Your task to perform on an android device: all mails in gmail Image 0: 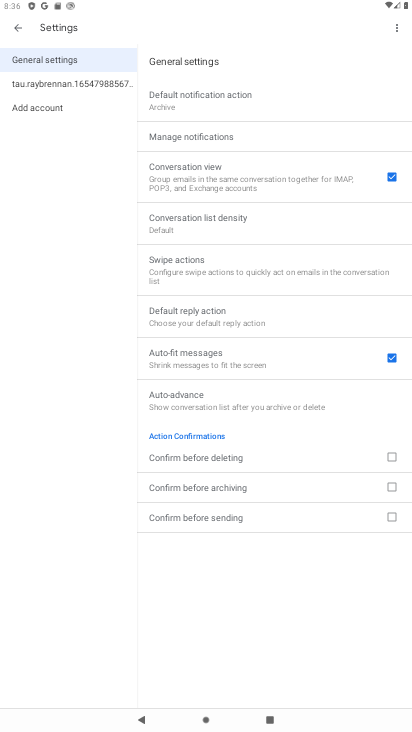
Step 0: press home button
Your task to perform on an android device: all mails in gmail Image 1: 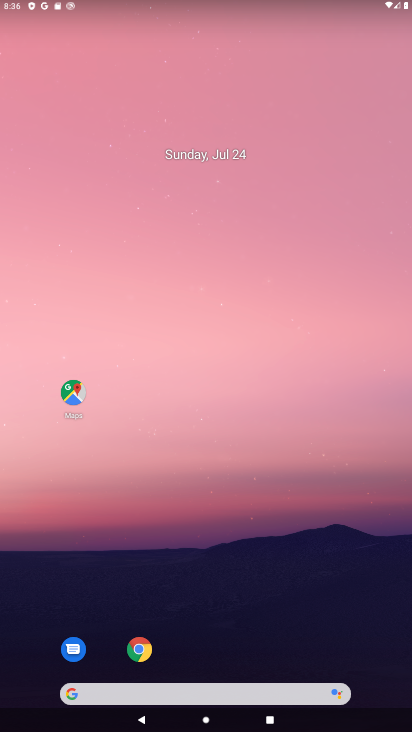
Step 1: drag from (266, 640) to (263, 111)
Your task to perform on an android device: all mails in gmail Image 2: 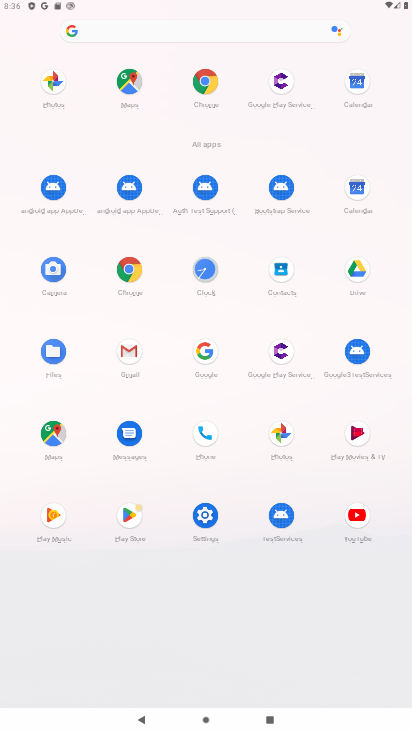
Step 2: click (130, 358)
Your task to perform on an android device: all mails in gmail Image 3: 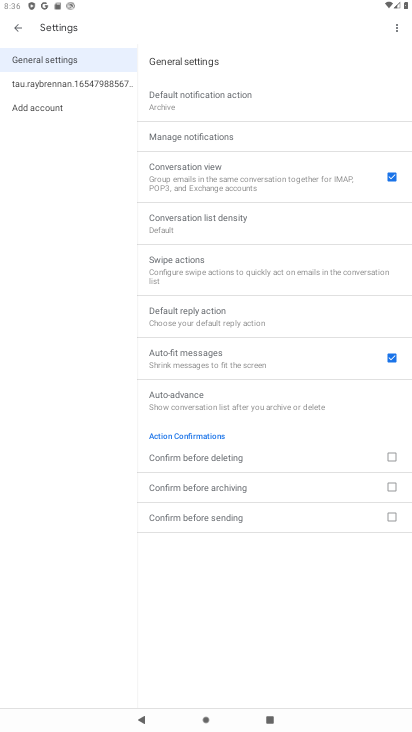
Step 3: click (24, 34)
Your task to perform on an android device: all mails in gmail Image 4: 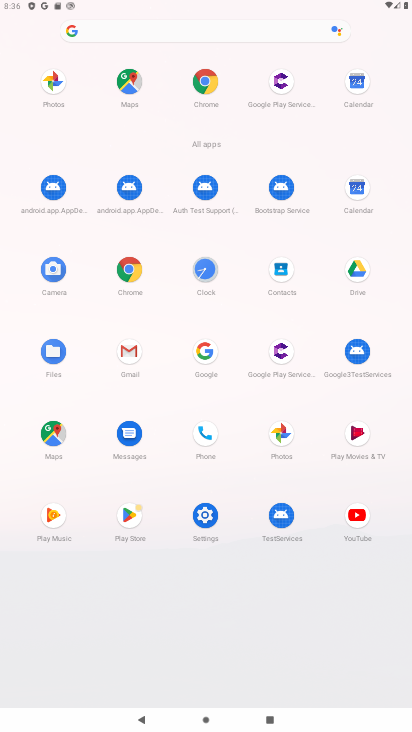
Step 4: click (127, 340)
Your task to perform on an android device: all mails in gmail Image 5: 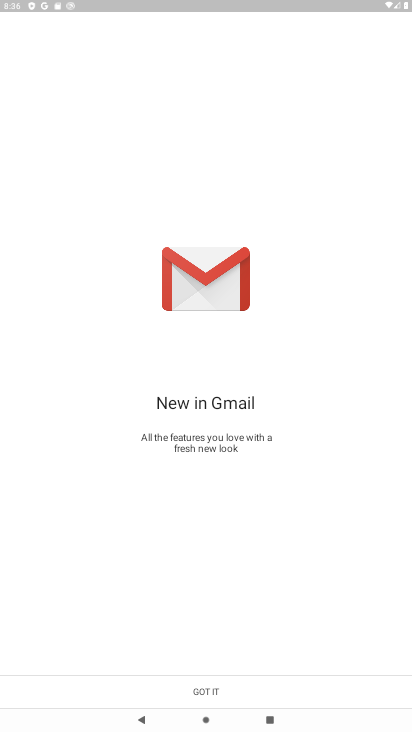
Step 5: click (245, 684)
Your task to perform on an android device: all mails in gmail Image 6: 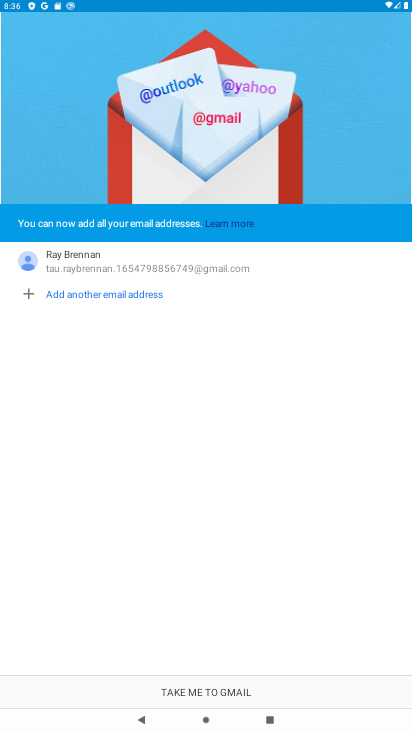
Step 6: click (259, 684)
Your task to perform on an android device: all mails in gmail Image 7: 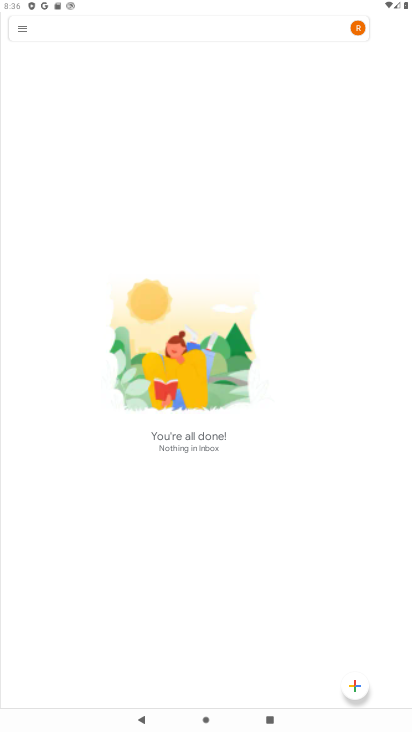
Step 7: click (59, 32)
Your task to perform on an android device: all mails in gmail Image 8: 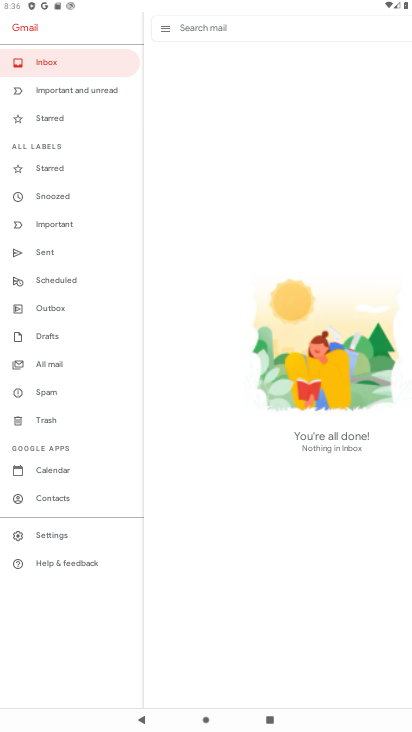
Step 8: click (72, 359)
Your task to perform on an android device: all mails in gmail Image 9: 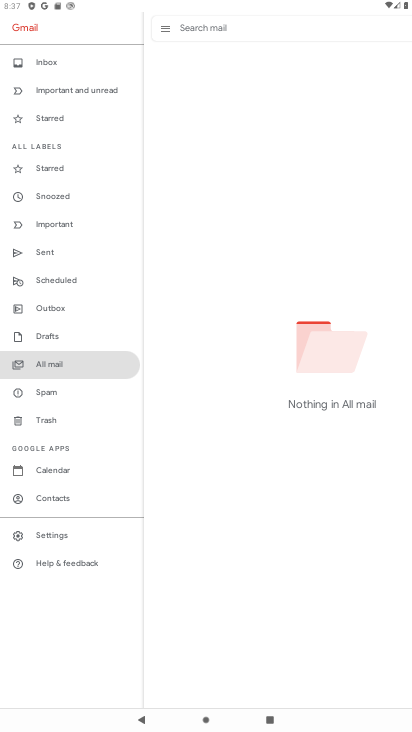
Step 9: task complete